Your task to perform on an android device: turn off smart reply in the gmail app Image 0: 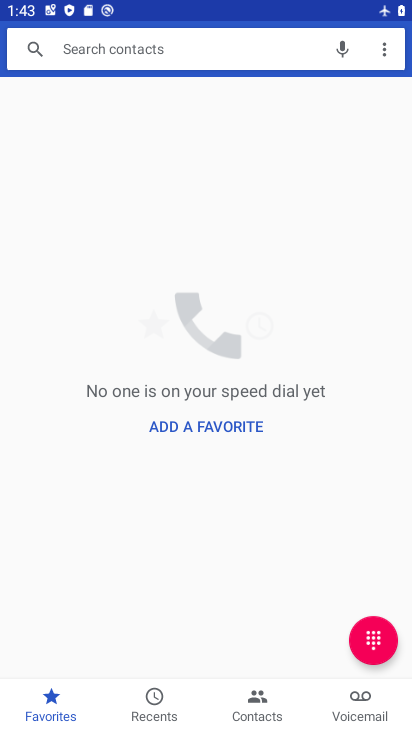
Step 0: press home button
Your task to perform on an android device: turn off smart reply in the gmail app Image 1: 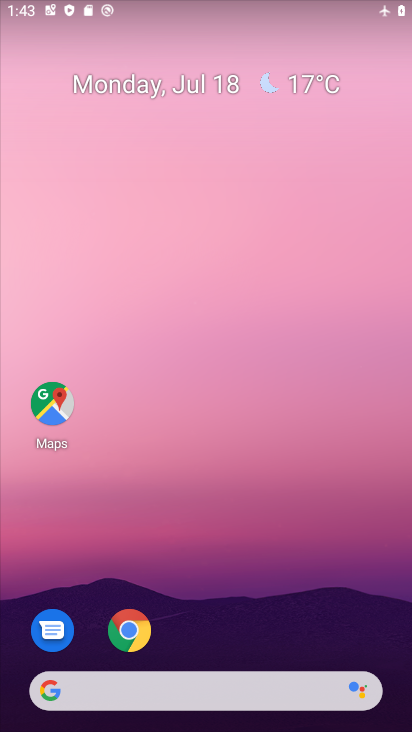
Step 1: drag from (342, 610) to (234, 32)
Your task to perform on an android device: turn off smart reply in the gmail app Image 2: 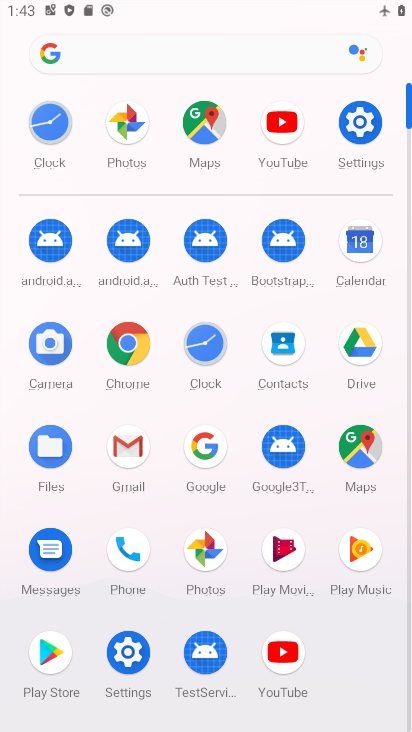
Step 2: click (135, 456)
Your task to perform on an android device: turn off smart reply in the gmail app Image 3: 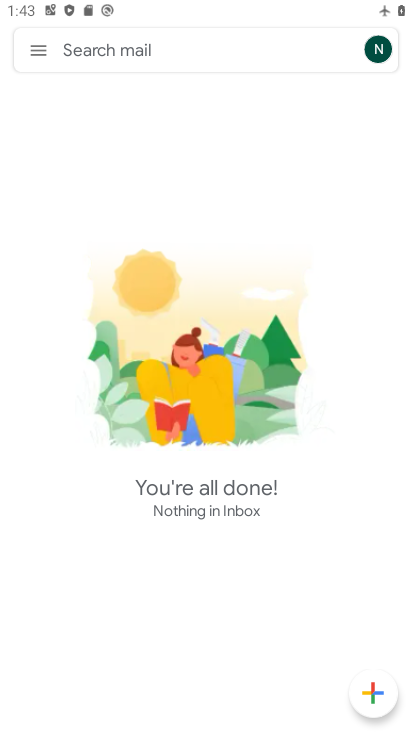
Step 3: click (35, 40)
Your task to perform on an android device: turn off smart reply in the gmail app Image 4: 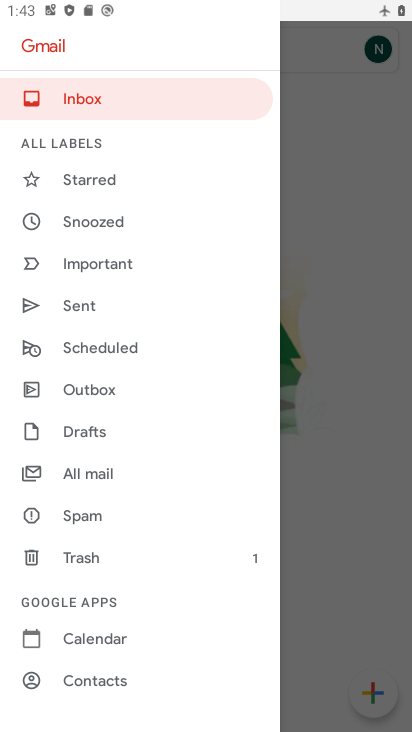
Step 4: drag from (148, 533) to (151, 370)
Your task to perform on an android device: turn off smart reply in the gmail app Image 5: 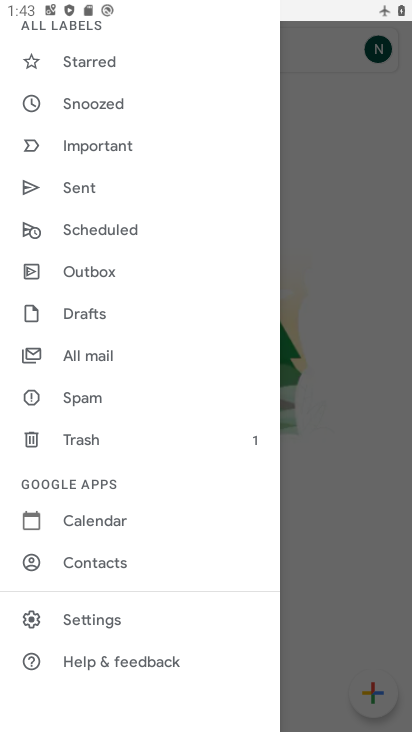
Step 5: click (102, 622)
Your task to perform on an android device: turn off smart reply in the gmail app Image 6: 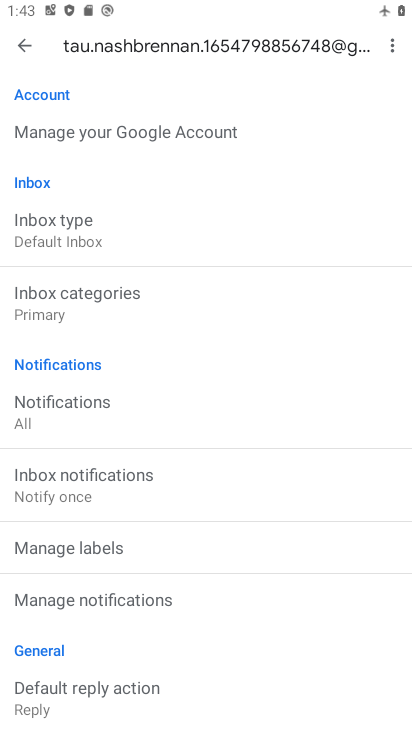
Step 6: drag from (236, 504) to (221, 62)
Your task to perform on an android device: turn off smart reply in the gmail app Image 7: 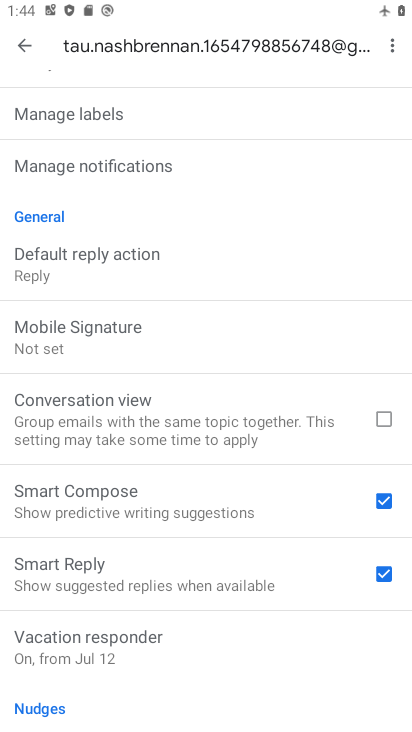
Step 7: drag from (270, 658) to (263, 574)
Your task to perform on an android device: turn off smart reply in the gmail app Image 8: 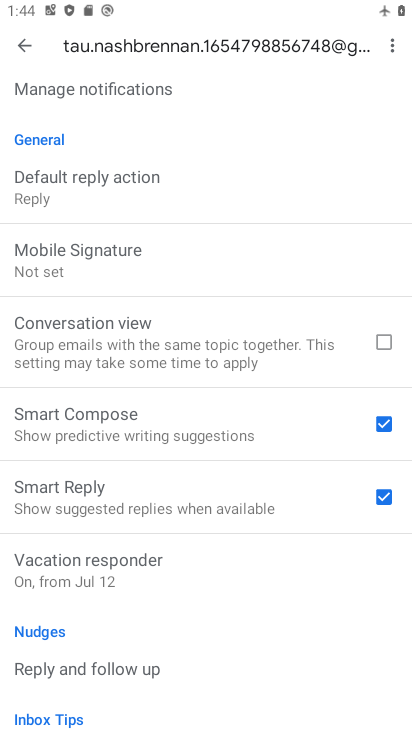
Step 8: click (387, 494)
Your task to perform on an android device: turn off smart reply in the gmail app Image 9: 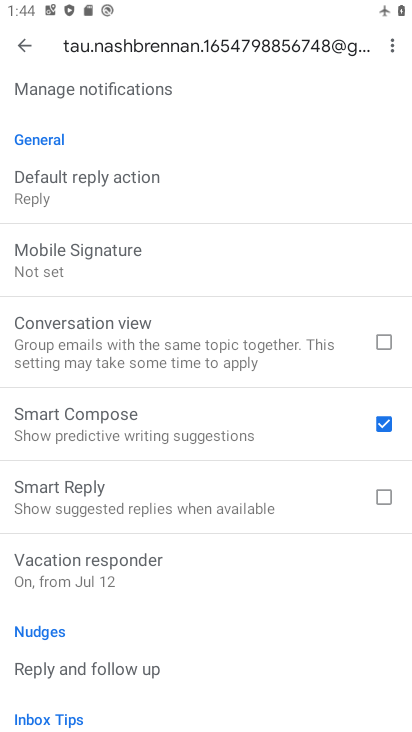
Step 9: task complete